Your task to perform on an android device: Add "razer thresher" to the cart on target, then select checkout. Image 0: 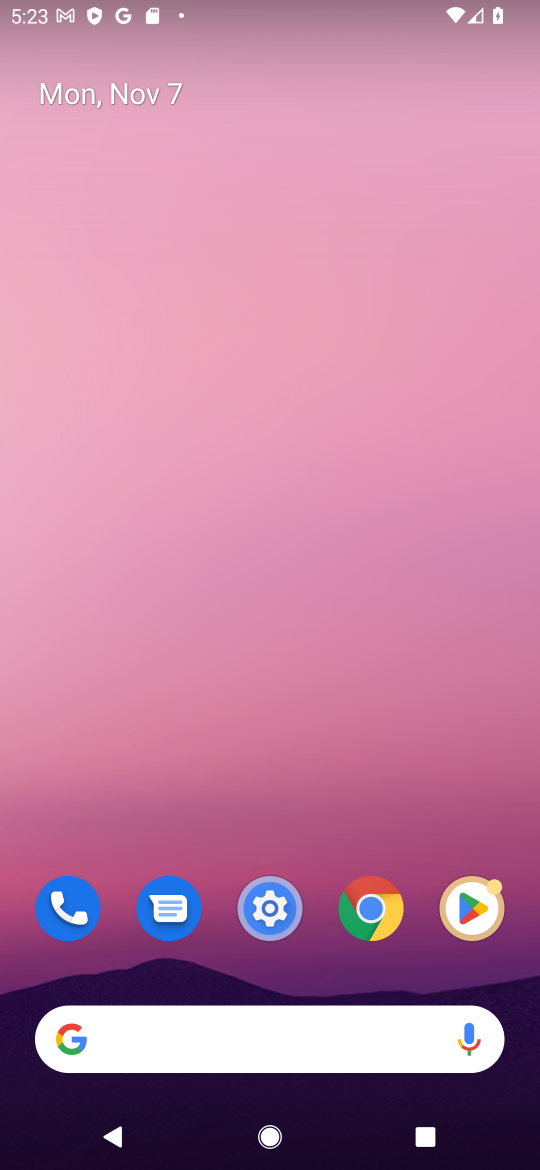
Step 0: click (260, 1024)
Your task to perform on an android device: Add "razer thresher" to the cart on target, then select checkout. Image 1: 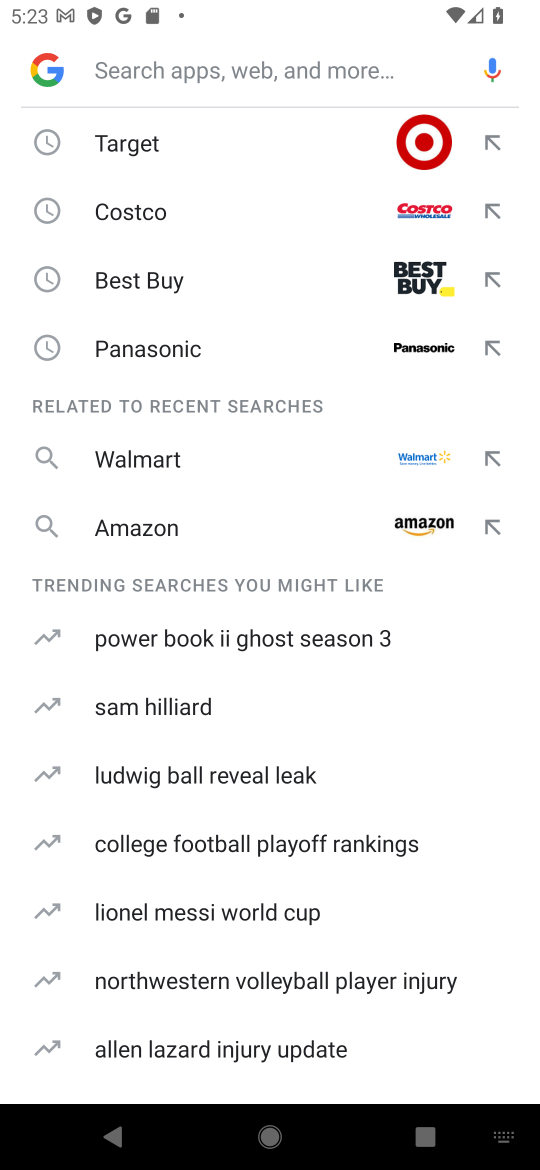
Step 1: click (177, 144)
Your task to perform on an android device: Add "razer thresher" to the cart on target, then select checkout. Image 2: 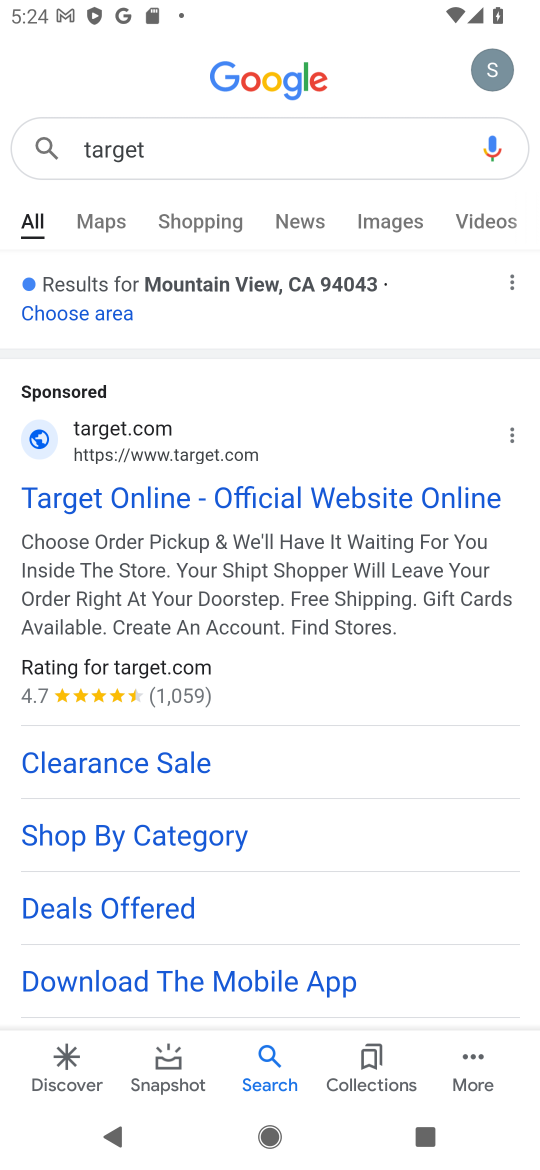
Step 2: click (172, 496)
Your task to perform on an android device: Add "razer thresher" to the cart on target, then select checkout. Image 3: 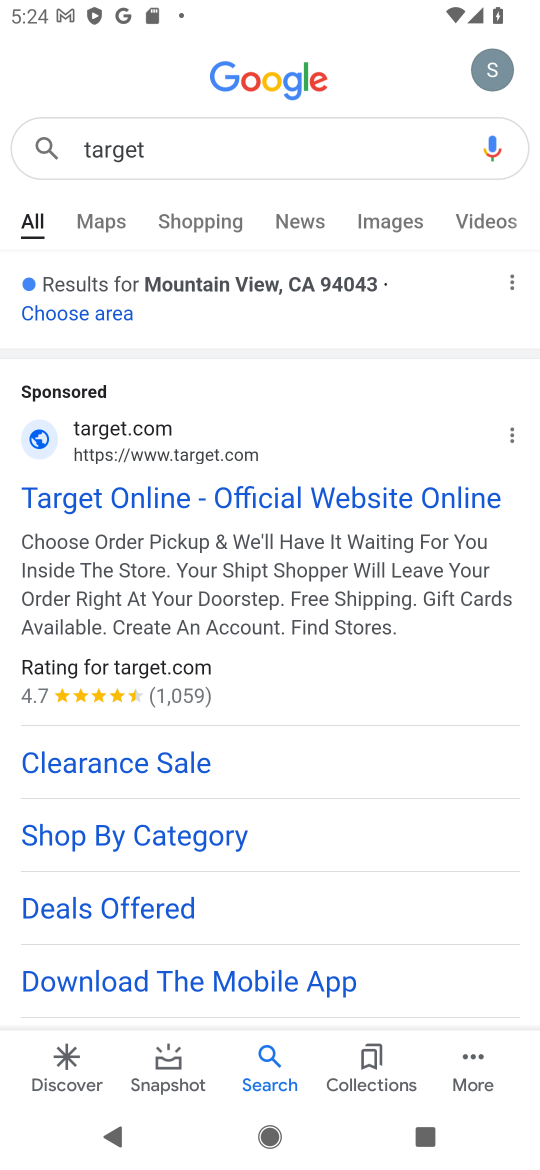
Step 3: task complete